Your task to perform on an android device: create a new album in the google photos Image 0: 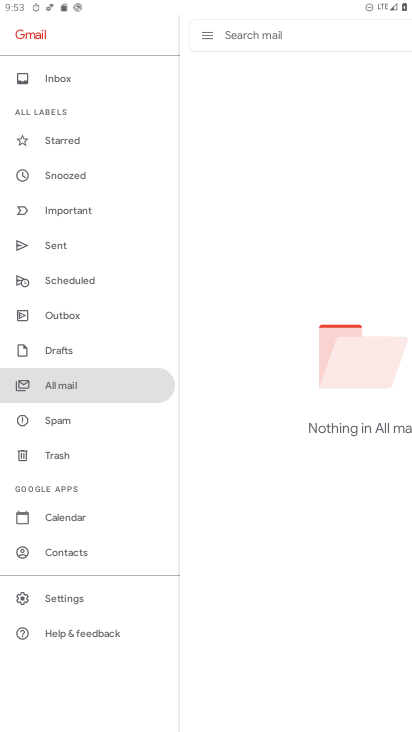
Step 0: press home button
Your task to perform on an android device: create a new album in the google photos Image 1: 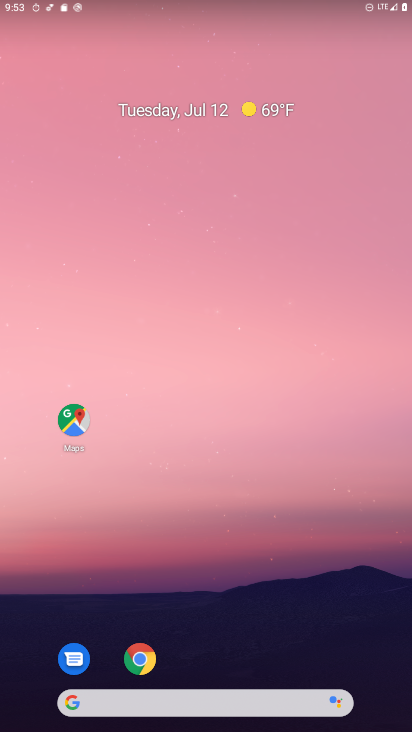
Step 1: drag from (236, 731) to (221, 211)
Your task to perform on an android device: create a new album in the google photos Image 2: 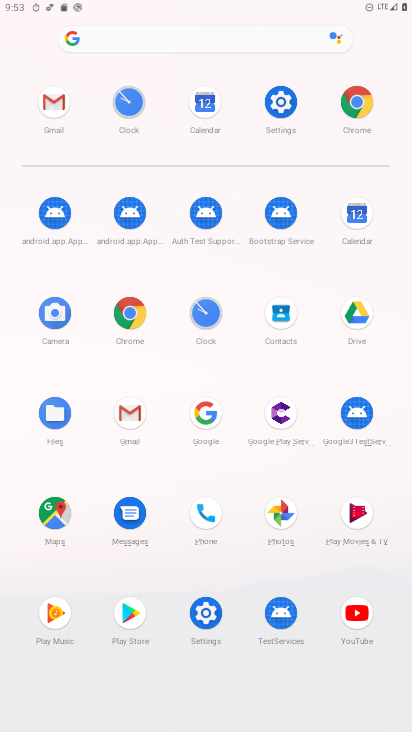
Step 2: click (273, 515)
Your task to perform on an android device: create a new album in the google photos Image 3: 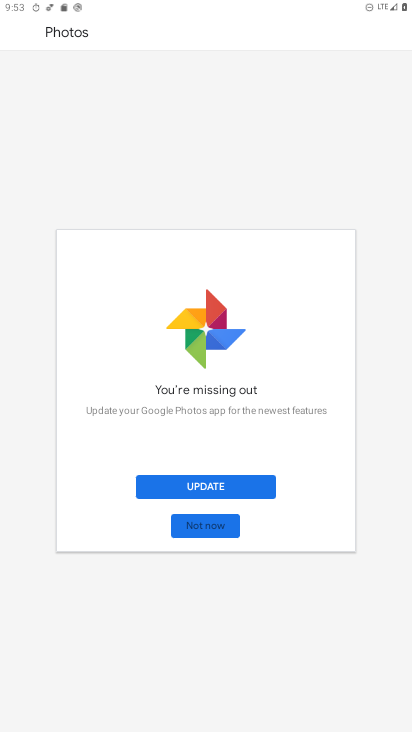
Step 3: task complete